Your task to perform on an android device: turn on data saver in the chrome app Image 0: 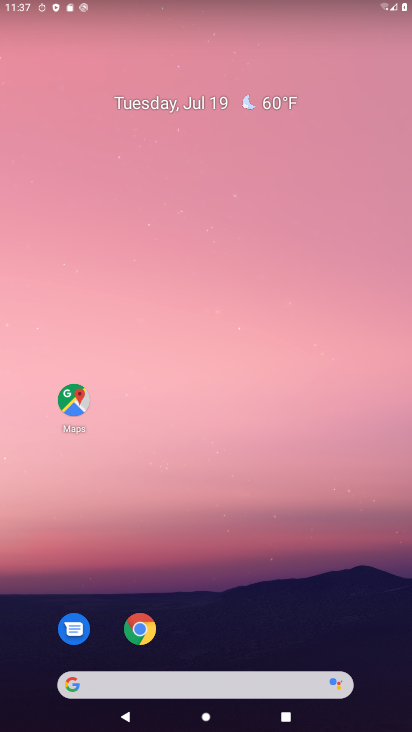
Step 0: click (139, 635)
Your task to perform on an android device: turn on data saver in the chrome app Image 1: 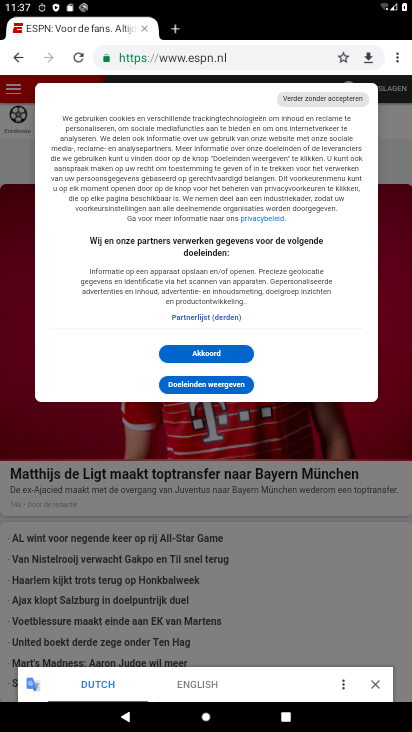
Step 1: click (390, 57)
Your task to perform on an android device: turn on data saver in the chrome app Image 2: 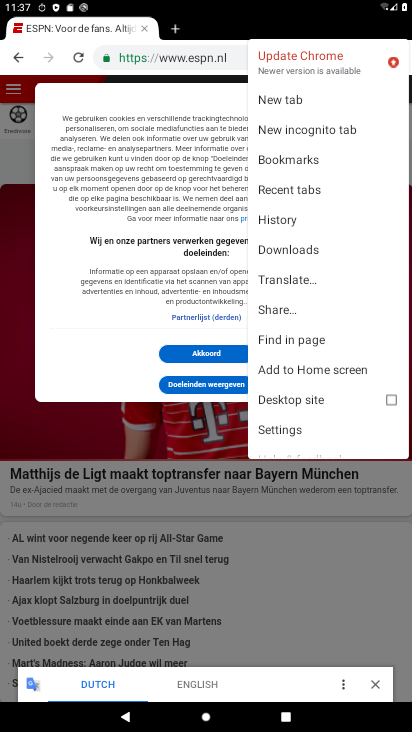
Step 2: click (320, 435)
Your task to perform on an android device: turn on data saver in the chrome app Image 3: 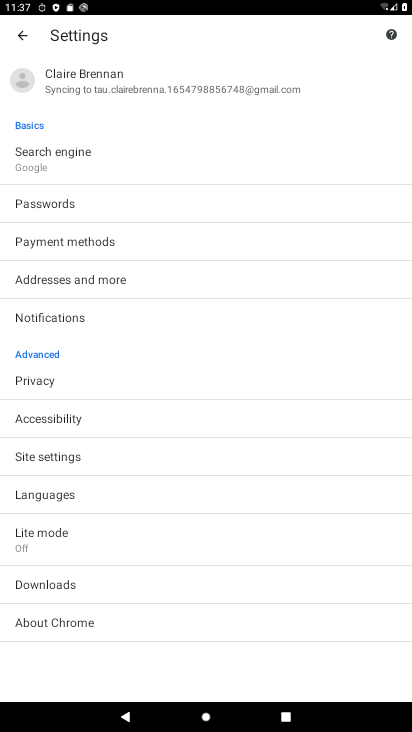
Step 3: click (70, 539)
Your task to perform on an android device: turn on data saver in the chrome app Image 4: 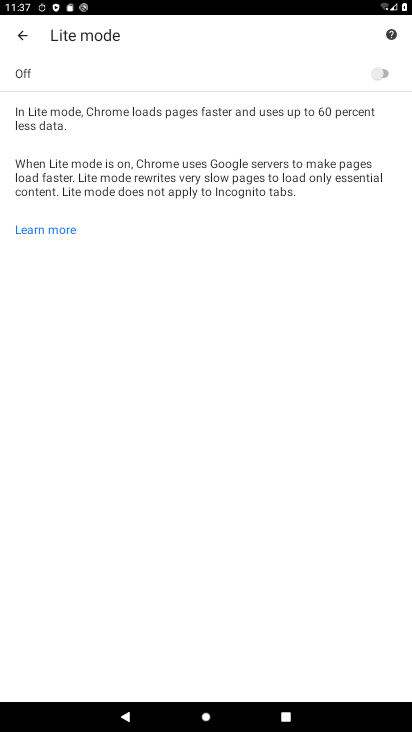
Step 4: click (383, 70)
Your task to perform on an android device: turn on data saver in the chrome app Image 5: 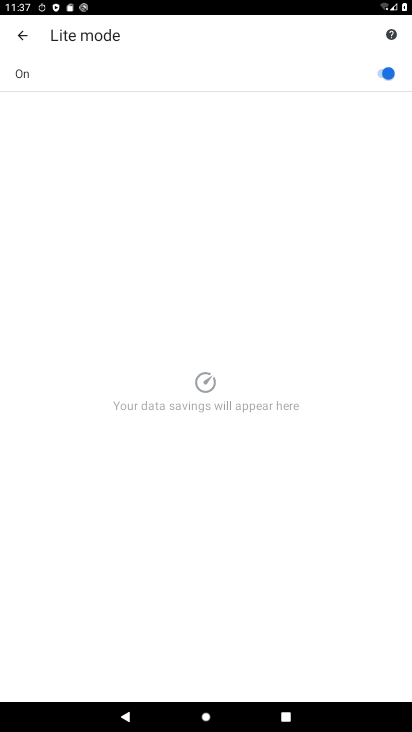
Step 5: task complete